Your task to perform on an android device: remove spam from my inbox in the gmail app Image 0: 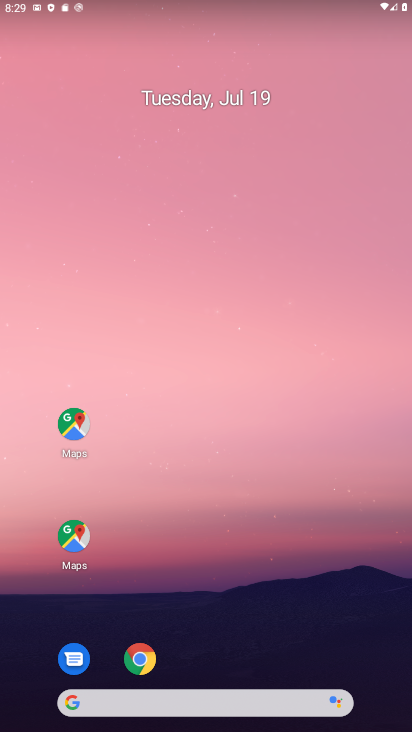
Step 0: drag from (212, 493) to (169, 231)
Your task to perform on an android device: remove spam from my inbox in the gmail app Image 1: 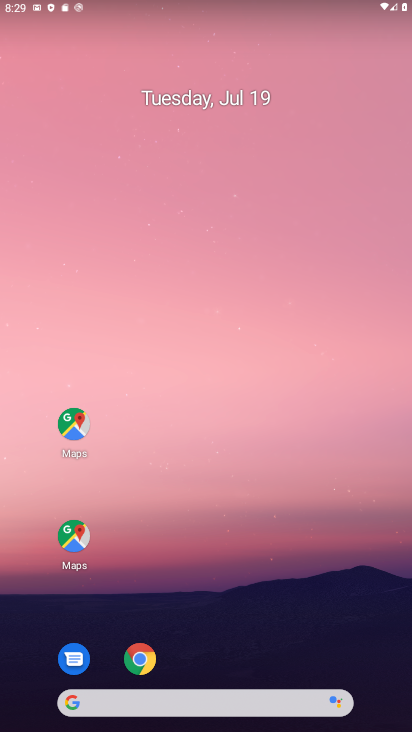
Step 1: drag from (194, 453) to (194, 230)
Your task to perform on an android device: remove spam from my inbox in the gmail app Image 2: 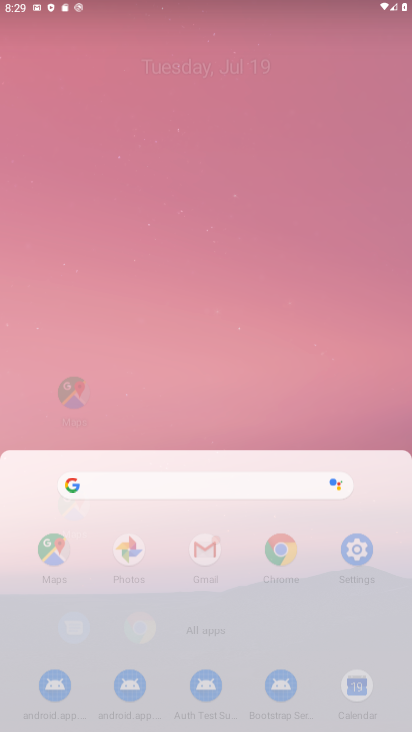
Step 2: drag from (218, 530) to (157, 63)
Your task to perform on an android device: remove spam from my inbox in the gmail app Image 3: 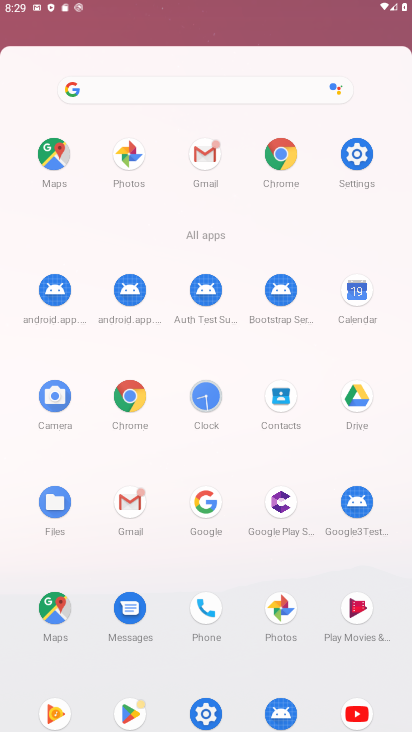
Step 3: click (188, 126)
Your task to perform on an android device: remove spam from my inbox in the gmail app Image 4: 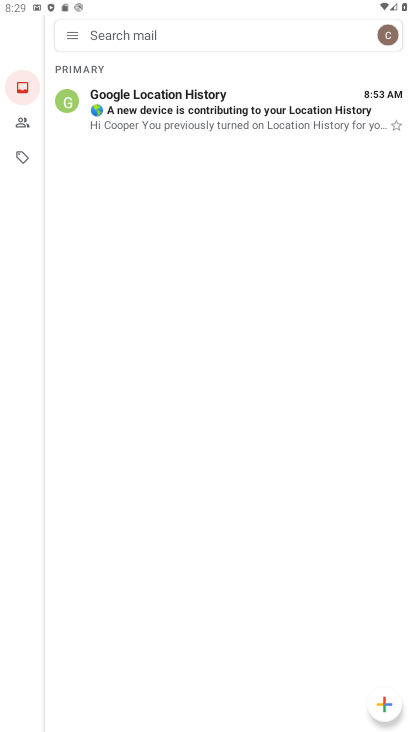
Step 4: press back button
Your task to perform on an android device: remove spam from my inbox in the gmail app Image 5: 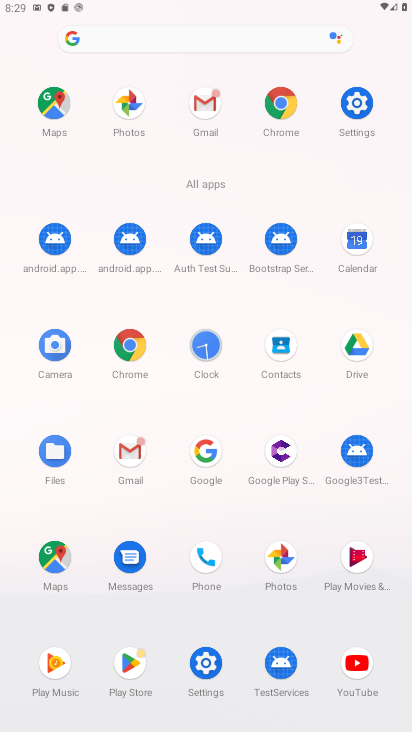
Step 5: click (126, 446)
Your task to perform on an android device: remove spam from my inbox in the gmail app Image 6: 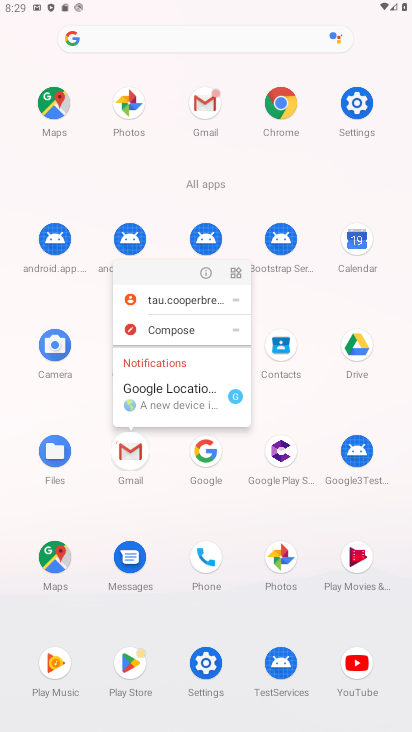
Step 6: click (130, 449)
Your task to perform on an android device: remove spam from my inbox in the gmail app Image 7: 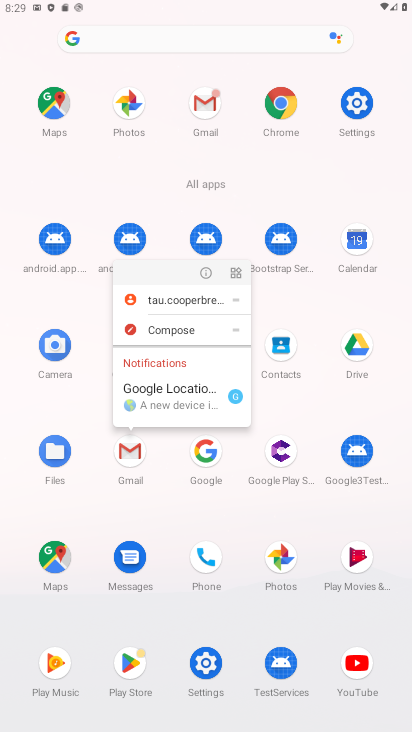
Step 7: click (130, 449)
Your task to perform on an android device: remove spam from my inbox in the gmail app Image 8: 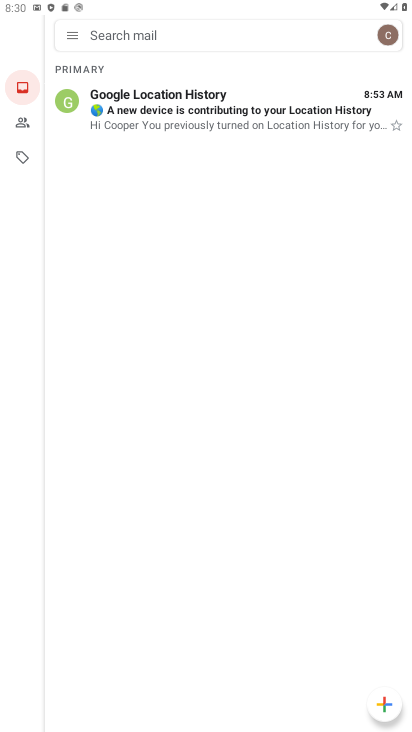
Step 8: click (68, 29)
Your task to perform on an android device: remove spam from my inbox in the gmail app Image 9: 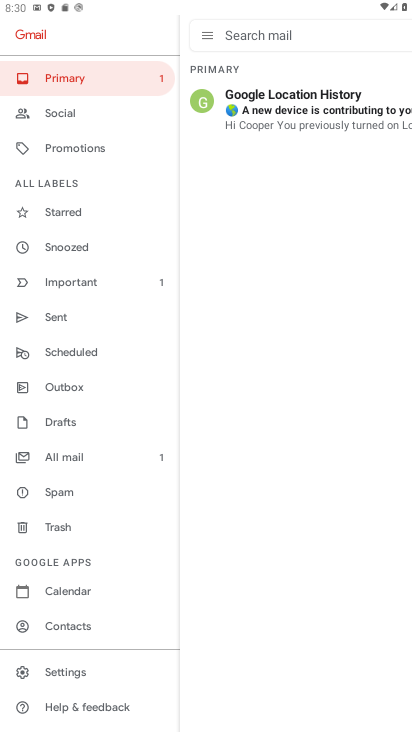
Step 9: click (51, 496)
Your task to perform on an android device: remove spam from my inbox in the gmail app Image 10: 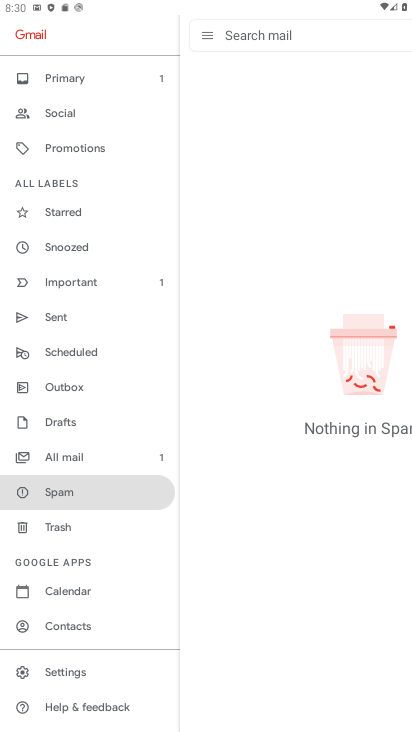
Step 10: task complete